Your task to perform on an android device: make emails show in primary in the gmail app Image 0: 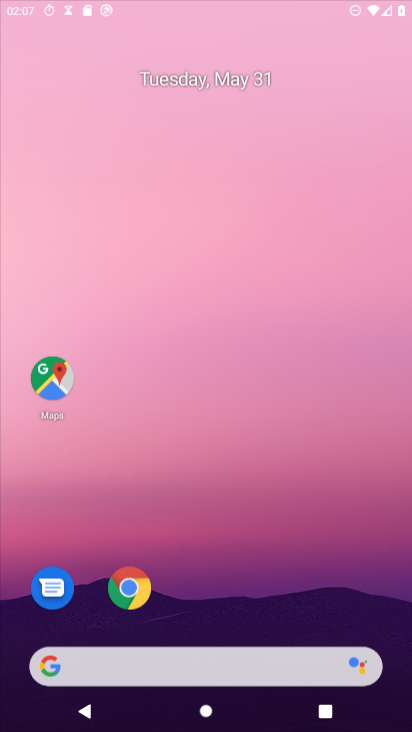
Step 0: drag from (312, 206) to (249, 4)
Your task to perform on an android device: make emails show in primary in the gmail app Image 1: 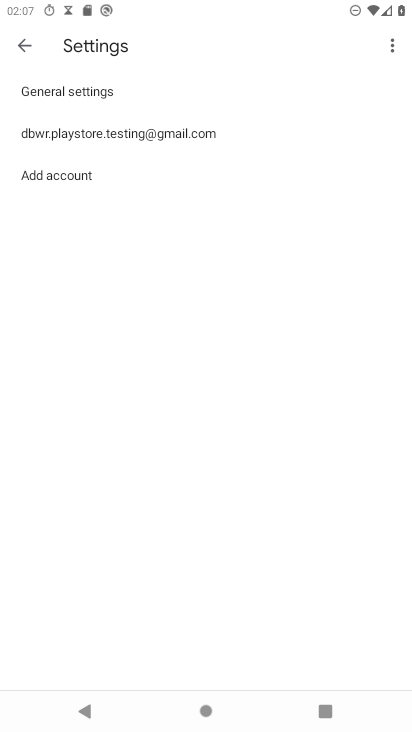
Step 1: press home button
Your task to perform on an android device: make emails show in primary in the gmail app Image 2: 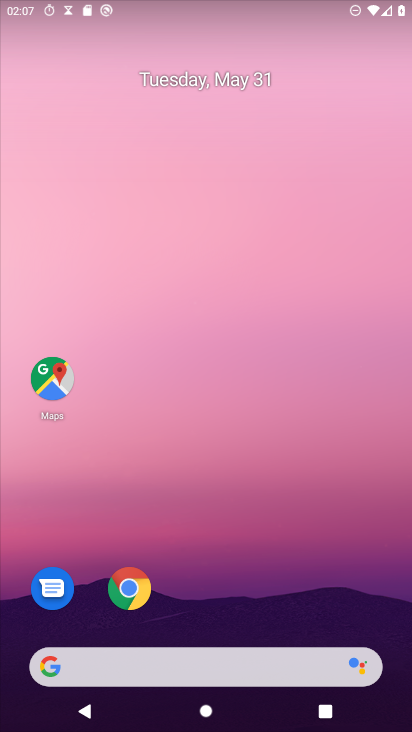
Step 2: drag from (336, 550) to (372, 13)
Your task to perform on an android device: make emails show in primary in the gmail app Image 3: 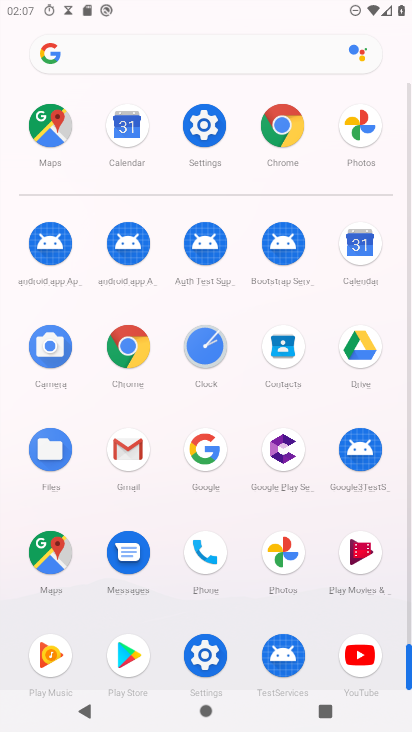
Step 3: click (126, 461)
Your task to perform on an android device: make emails show in primary in the gmail app Image 4: 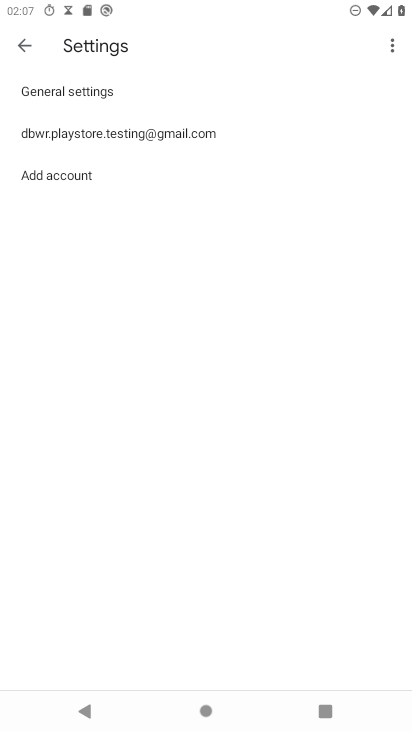
Step 4: press back button
Your task to perform on an android device: make emails show in primary in the gmail app Image 5: 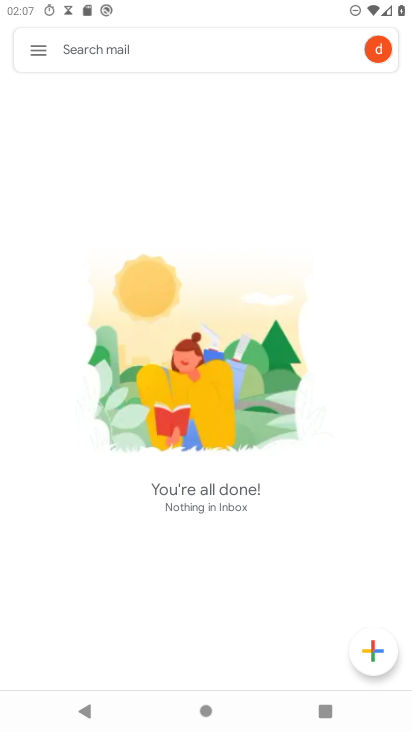
Step 5: click (49, 47)
Your task to perform on an android device: make emails show in primary in the gmail app Image 6: 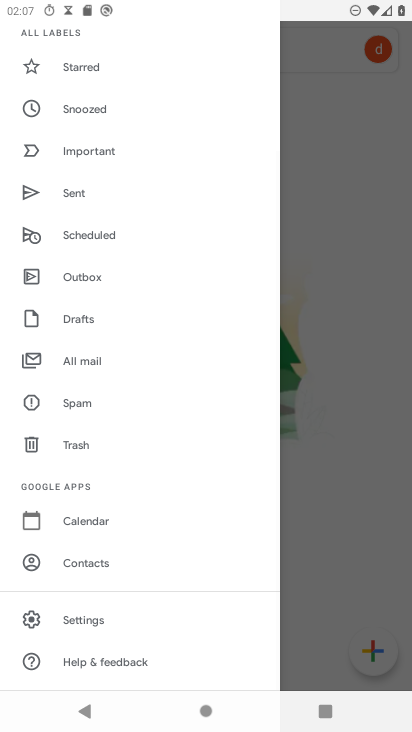
Step 6: click (99, 621)
Your task to perform on an android device: make emails show in primary in the gmail app Image 7: 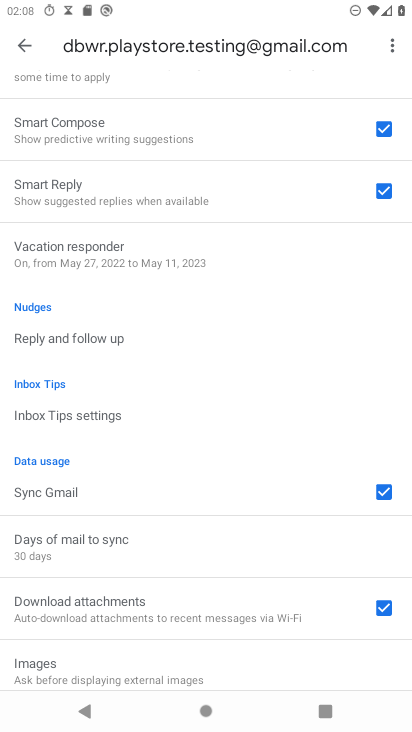
Step 7: press back button
Your task to perform on an android device: make emails show in primary in the gmail app Image 8: 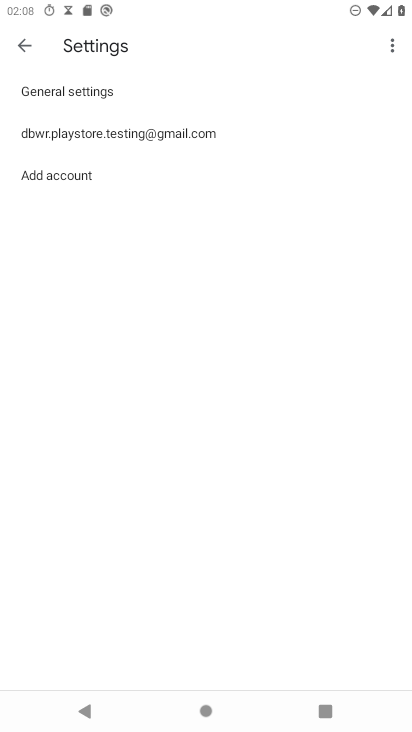
Step 8: press back button
Your task to perform on an android device: make emails show in primary in the gmail app Image 9: 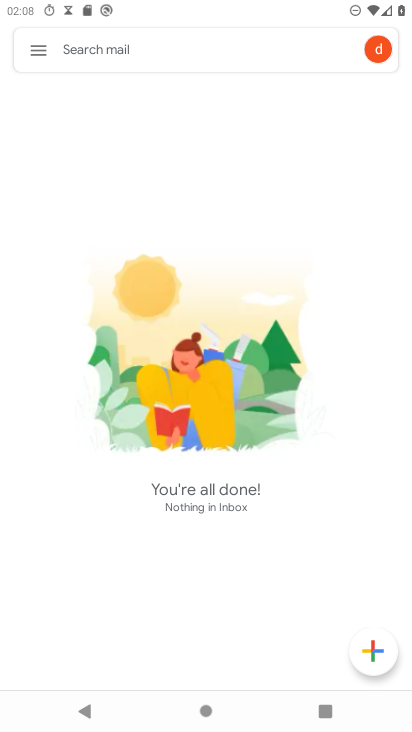
Step 9: click (46, 54)
Your task to perform on an android device: make emails show in primary in the gmail app Image 10: 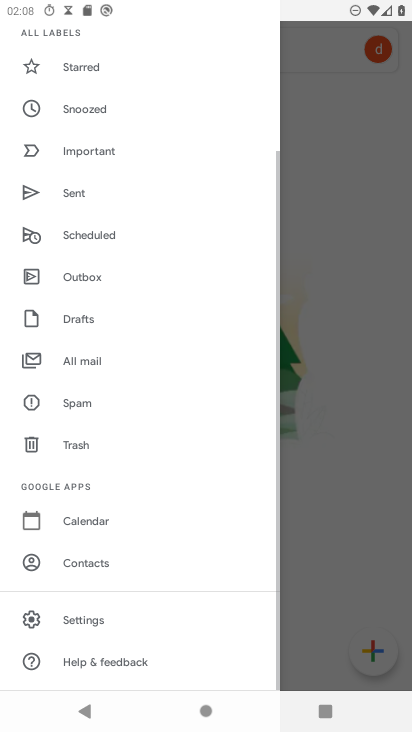
Step 10: click (113, 620)
Your task to perform on an android device: make emails show in primary in the gmail app Image 11: 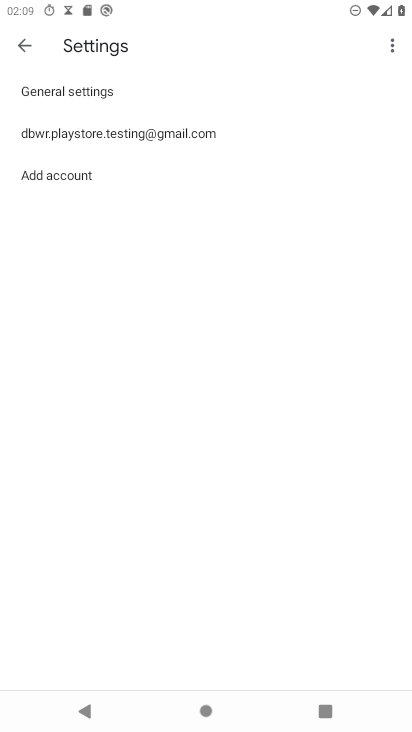
Step 11: click (165, 138)
Your task to perform on an android device: make emails show in primary in the gmail app Image 12: 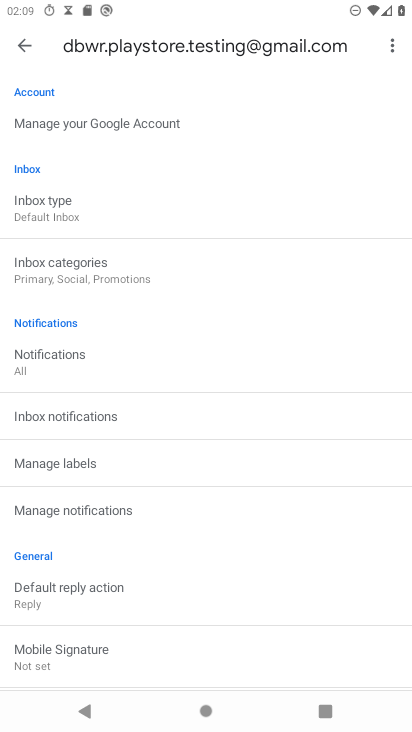
Step 12: press back button
Your task to perform on an android device: make emails show in primary in the gmail app Image 13: 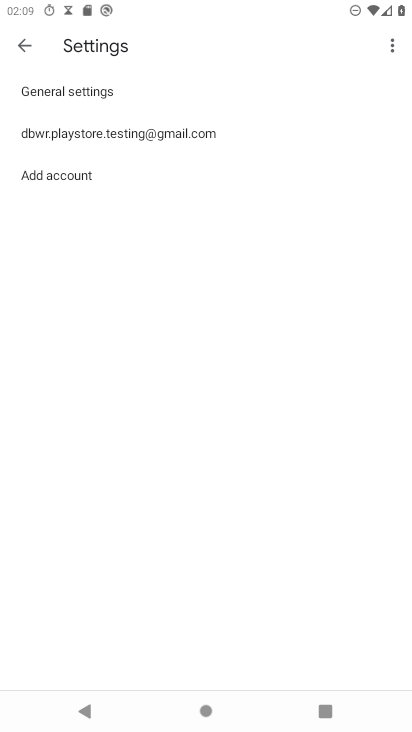
Step 13: press back button
Your task to perform on an android device: make emails show in primary in the gmail app Image 14: 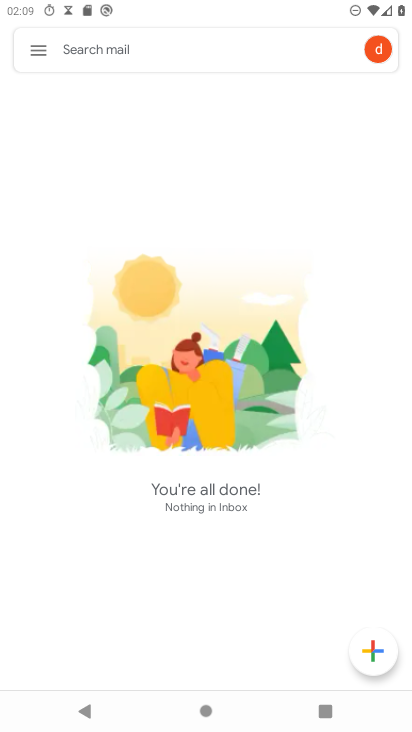
Step 14: click (21, 50)
Your task to perform on an android device: make emails show in primary in the gmail app Image 15: 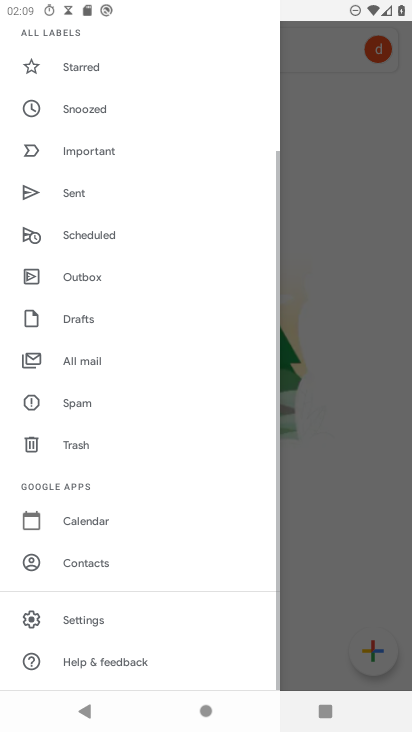
Step 15: task complete